Your task to perform on an android device: turn on airplane mode Image 0: 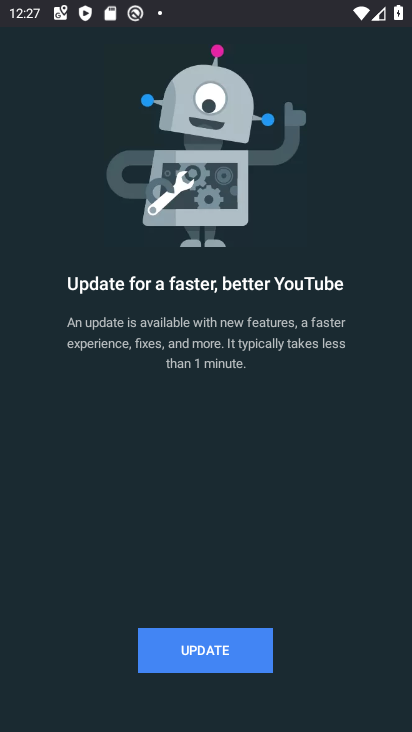
Step 0: press home button
Your task to perform on an android device: turn on airplane mode Image 1: 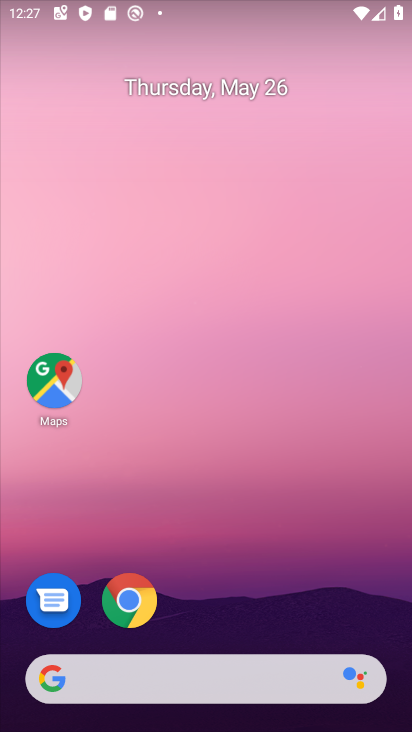
Step 1: drag from (250, 589) to (249, 154)
Your task to perform on an android device: turn on airplane mode Image 2: 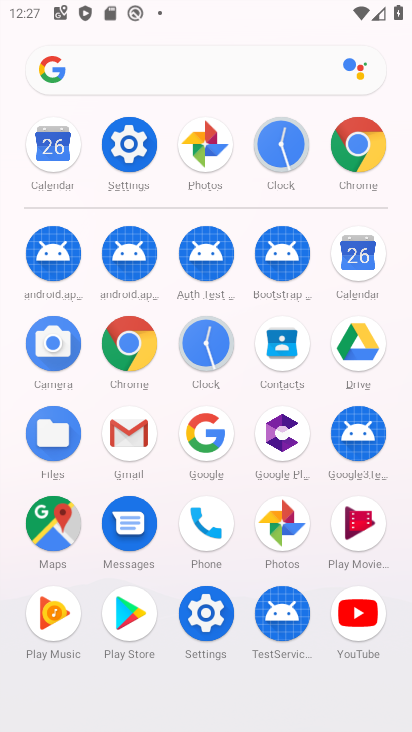
Step 2: click (133, 153)
Your task to perform on an android device: turn on airplane mode Image 3: 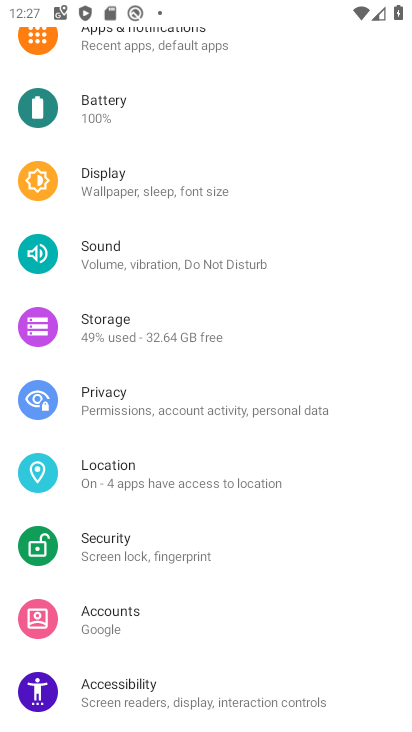
Step 3: drag from (228, 173) to (243, 523)
Your task to perform on an android device: turn on airplane mode Image 4: 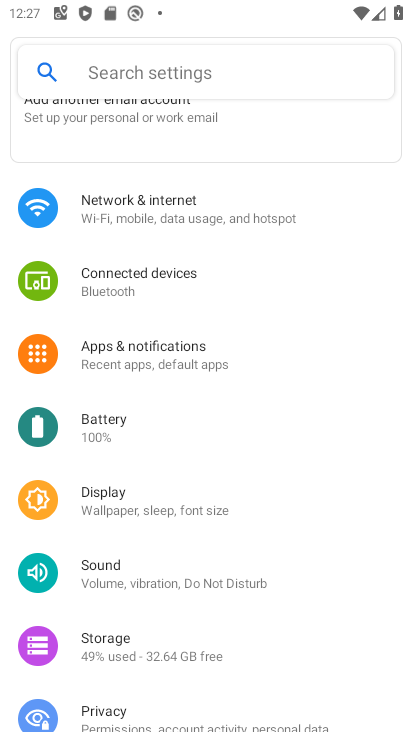
Step 4: click (202, 223)
Your task to perform on an android device: turn on airplane mode Image 5: 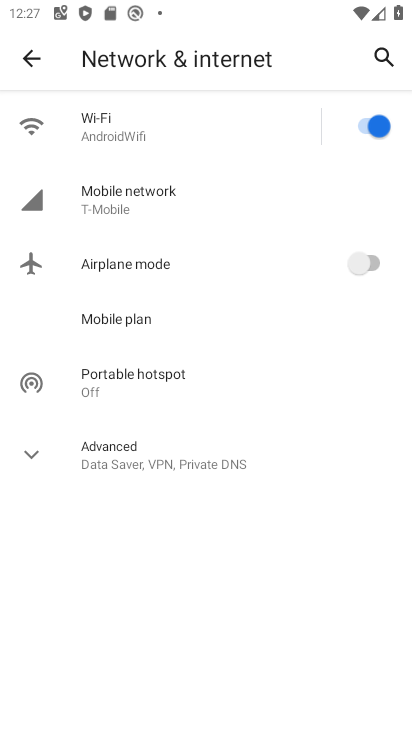
Step 5: click (348, 257)
Your task to perform on an android device: turn on airplane mode Image 6: 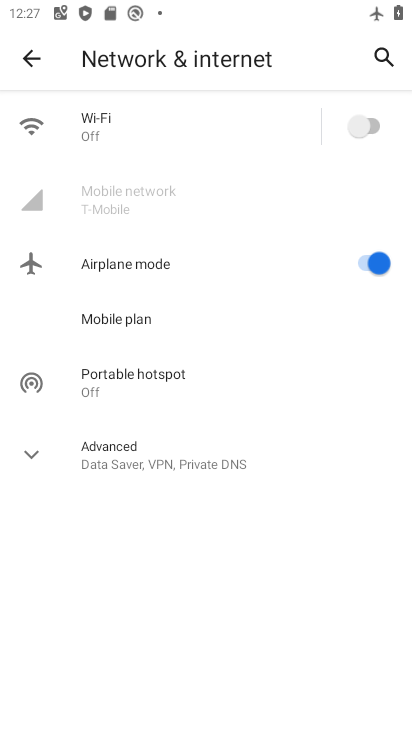
Step 6: task complete